Your task to perform on an android device: Open settings Image 0: 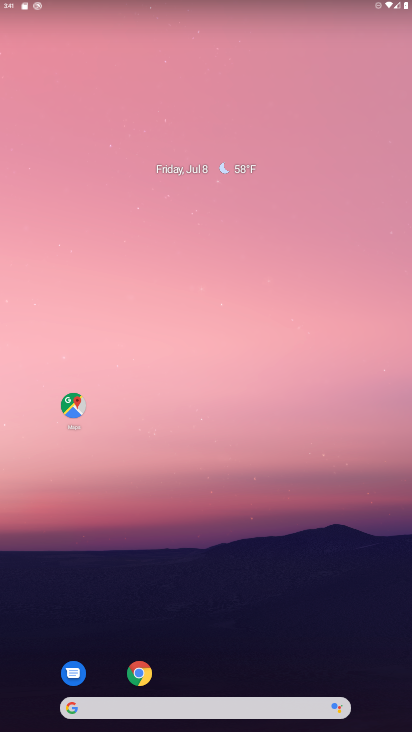
Step 0: drag from (206, 643) to (206, 448)
Your task to perform on an android device: Open settings Image 1: 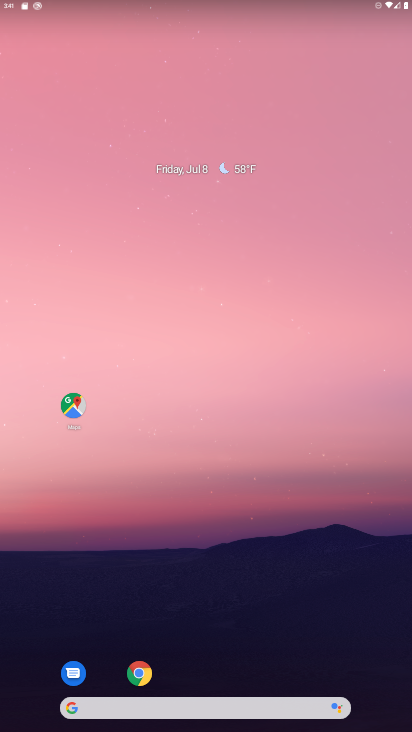
Step 1: drag from (249, 629) to (260, 351)
Your task to perform on an android device: Open settings Image 2: 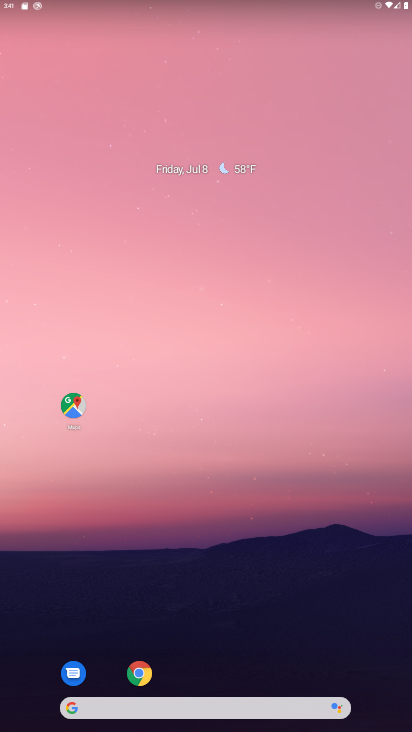
Step 2: drag from (218, 697) to (207, 236)
Your task to perform on an android device: Open settings Image 3: 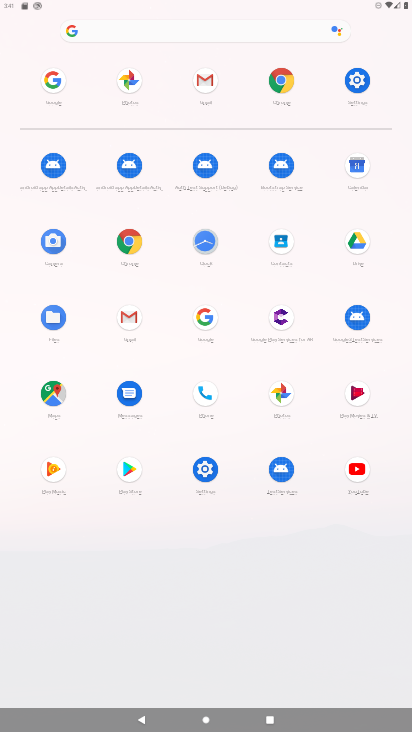
Step 3: click (362, 78)
Your task to perform on an android device: Open settings Image 4: 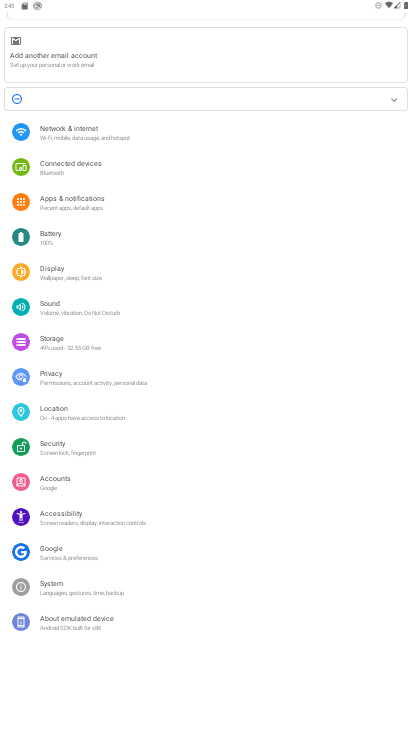
Step 4: task complete